Your task to perform on an android device: Do I have any events today? Image 0: 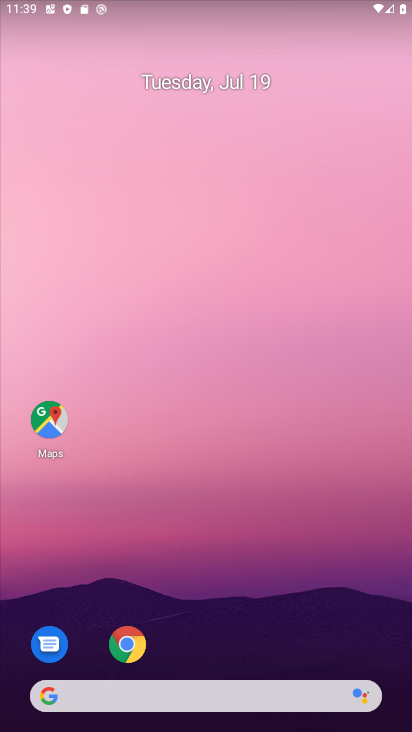
Step 0: drag from (231, 687) to (39, 0)
Your task to perform on an android device: Do I have any events today? Image 1: 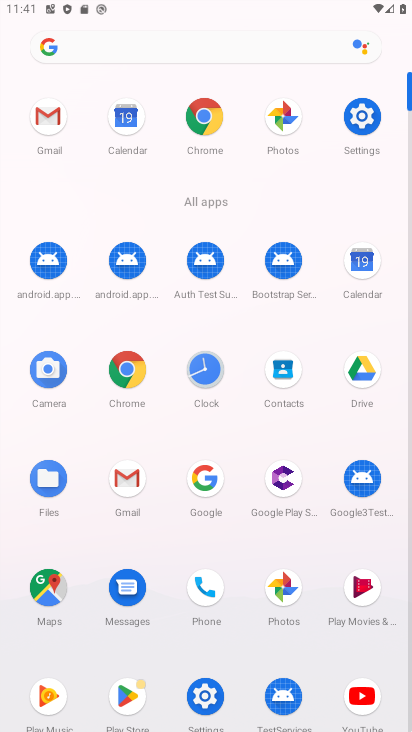
Step 1: click (364, 253)
Your task to perform on an android device: Do I have any events today? Image 2: 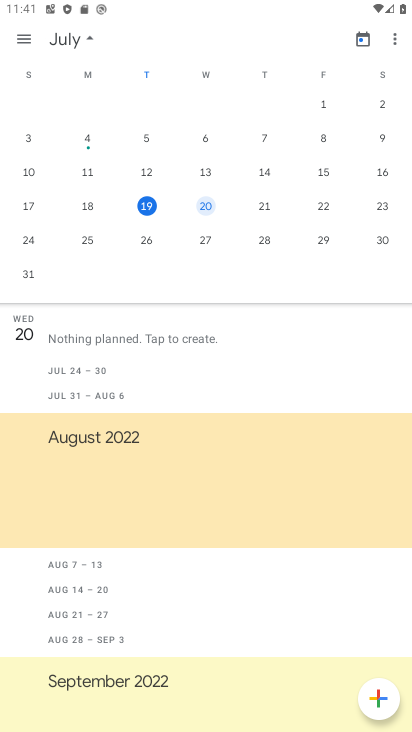
Step 2: task complete